Your task to perform on an android device: Open the Play Movies app and select the watchlist tab. Image 0: 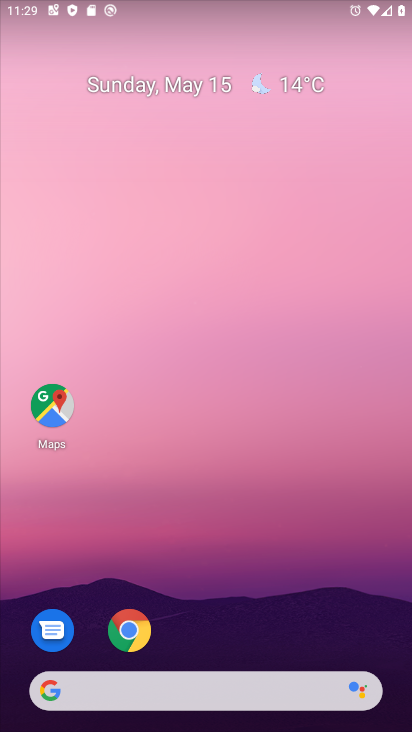
Step 0: drag from (232, 729) to (246, 87)
Your task to perform on an android device: Open the Play Movies app and select the watchlist tab. Image 1: 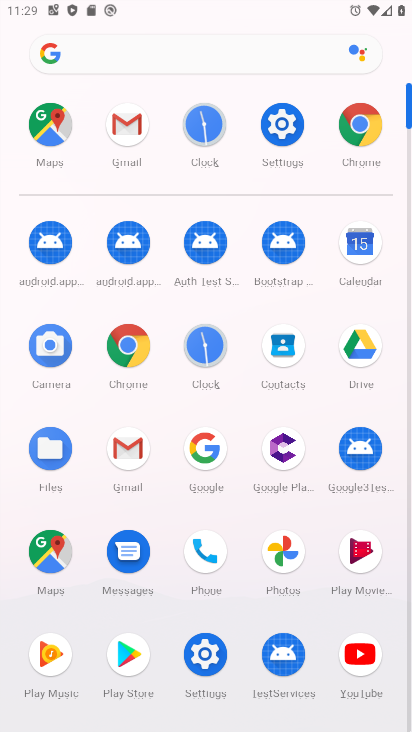
Step 1: click (355, 543)
Your task to perform on an android device: Open the Play Movies app and select the watchlist tab. Image 2: 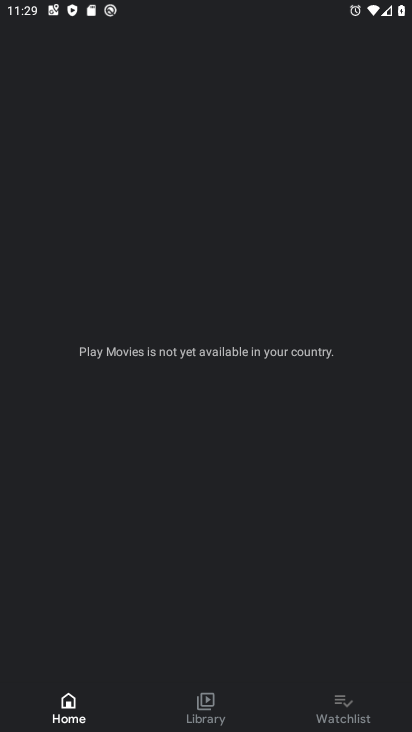
Step 2: click (349, 699)
Your task to perform on an android device: Open the Play Movies app and select the watchlist tab. Image 3: 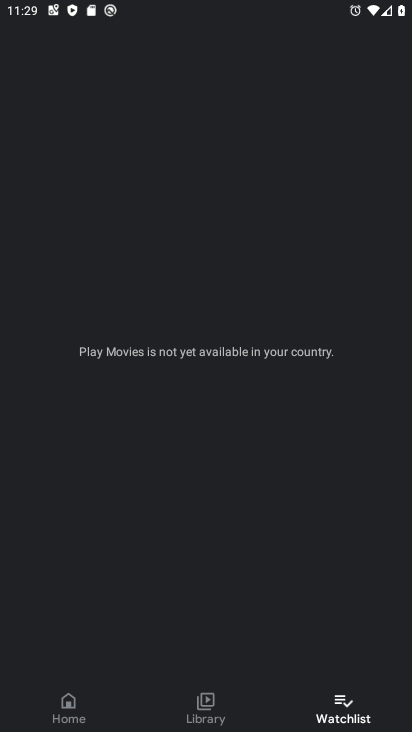
Step 3: task complete